Your task to perform on an android device: Open notification settings Image 0: 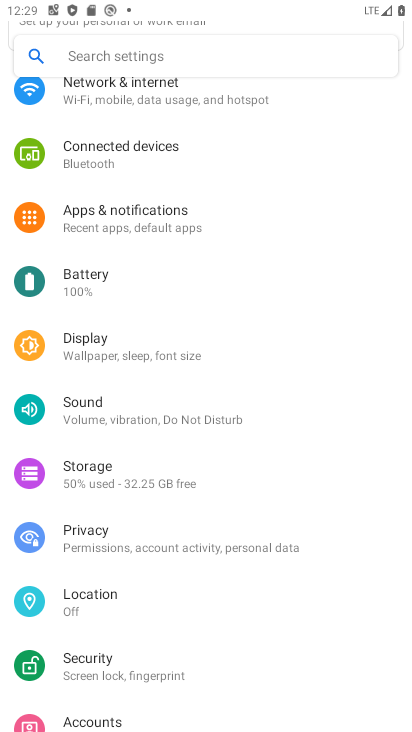
Step 0: press home button
Your task to perform on an android device: Open notification settings Image 1: 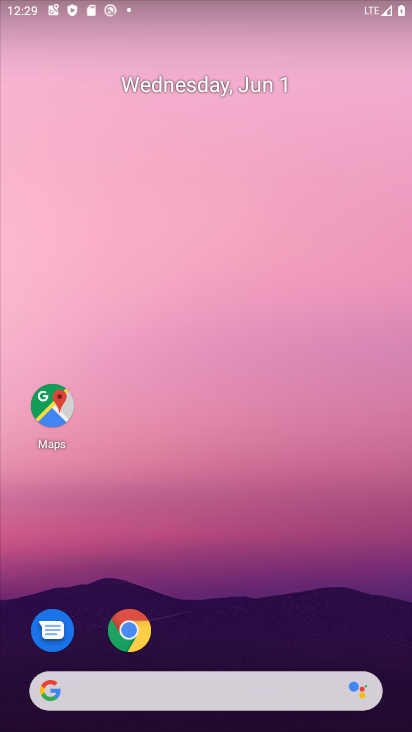
Step 1: drag from (305, 582) to (332, 57)
Your task to perform on an android device: Open notification settings Image 2: 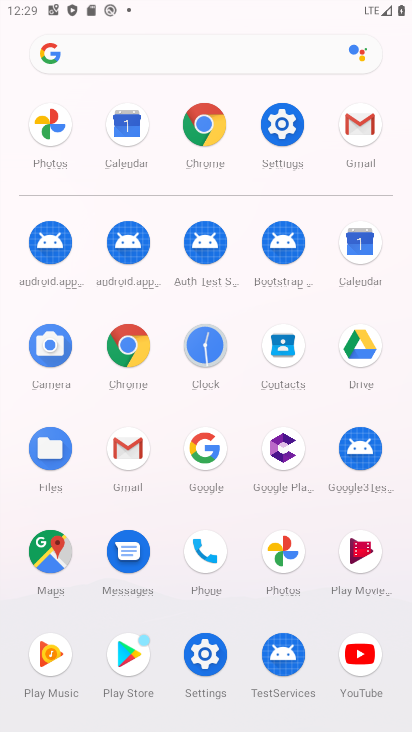
Step 2: click (270, 129)
Your task to perform on an android device: Open notification settings Image 3: 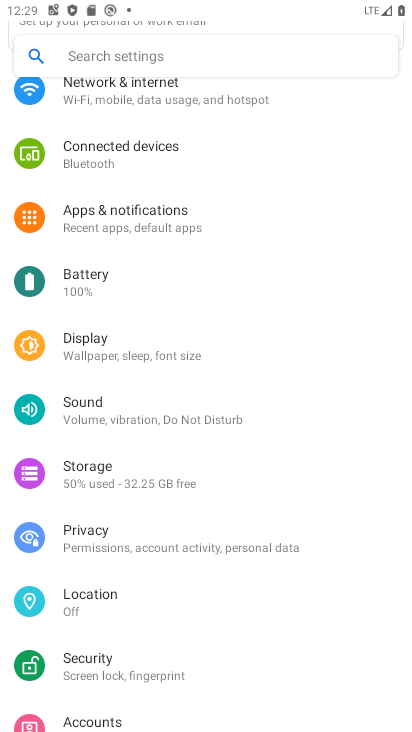
Step 3: click (169, 222)
Your task to perform on an android device: Open notification settings Image 4: 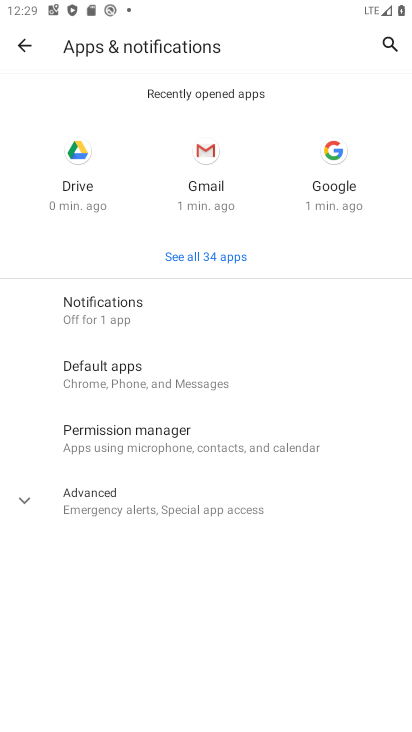
Step 4: click (141, 307)
Your task to perform on an android device: Open notification settings Image 5: 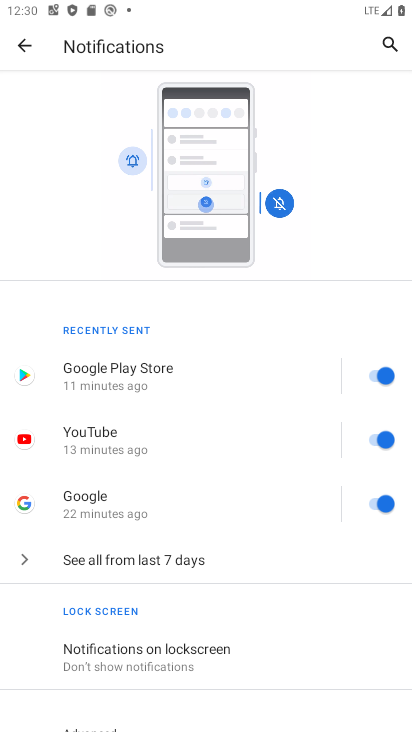
Step 5: drag from (298, 620) to (258, 131)
Your task to perform on an android device: Open notification settings Image 6: 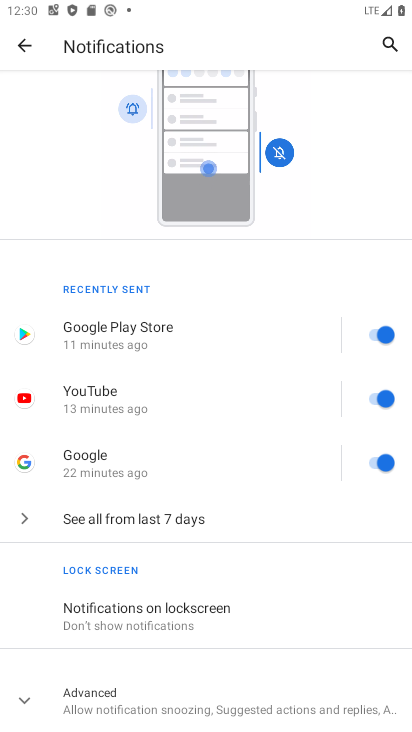
Step 6: click (19, 702)
Your task to perform on an android device: Open notification settings Image 7: 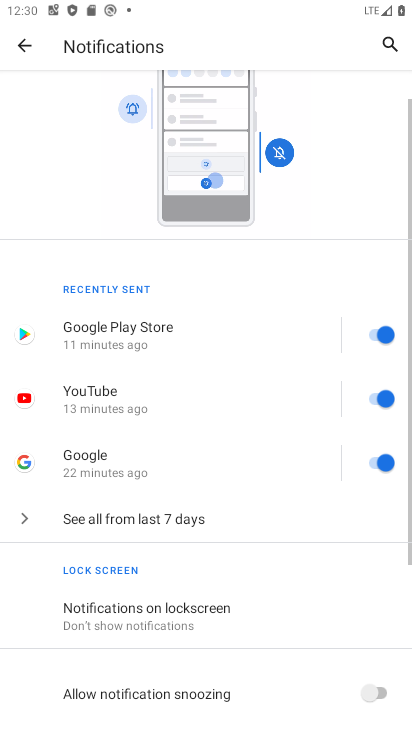
Step 7: task complete